Your task to perform on an android device: Open internet settings Image 0: 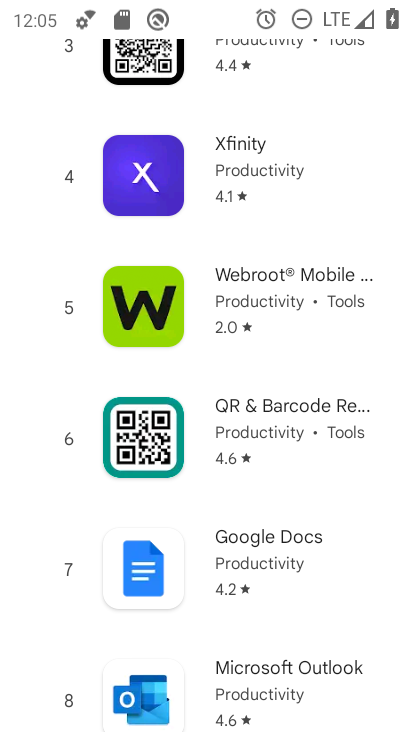
Step 0: press home button
Your task to perform on an android device: Open internet settings Image 1: 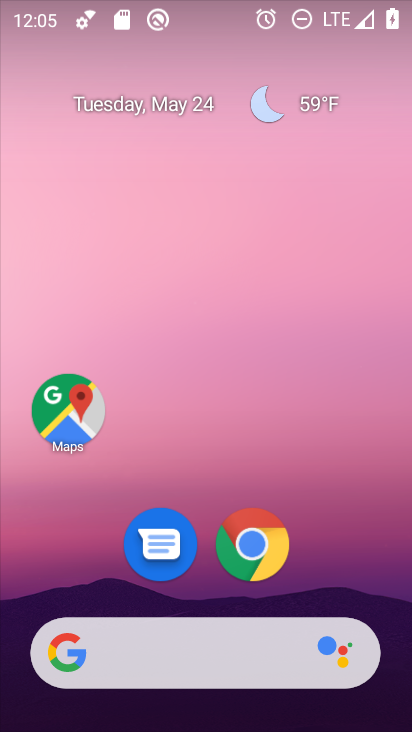
Step 1: drag from (373, 612) to (348, 125)
Your task to perform on an android device: Open internet settings Image 2: 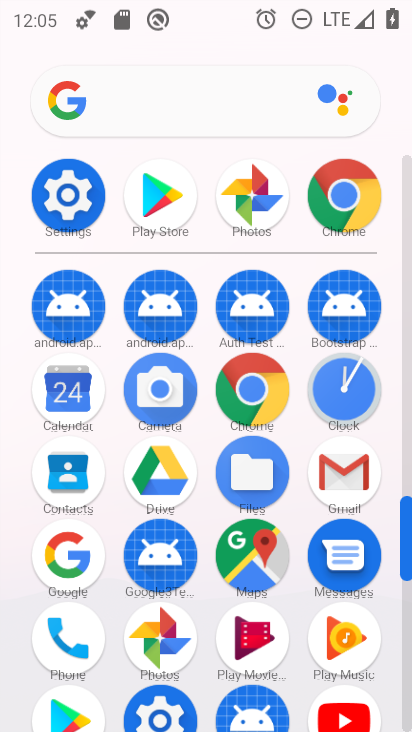
Step 2: click (69, 206)
Your task to perform on an android device: Open internet settings Image 3: 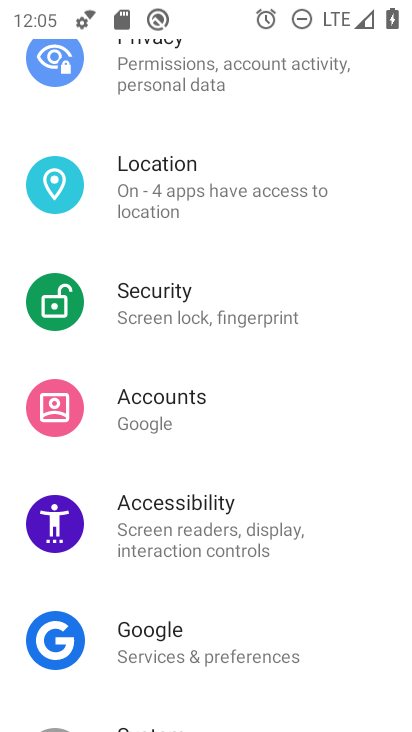
Step 3: drag from (357, 213) to (241, 642)
Your task to perform on an android device: Open internet settings Image 4: 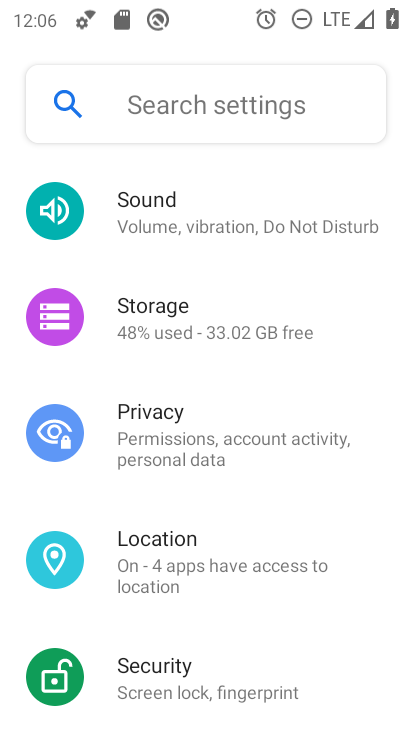
Step 4: drag from (348, 185) to (331, 616)
Your task to perform on an android device: Open internet settings Image 5: 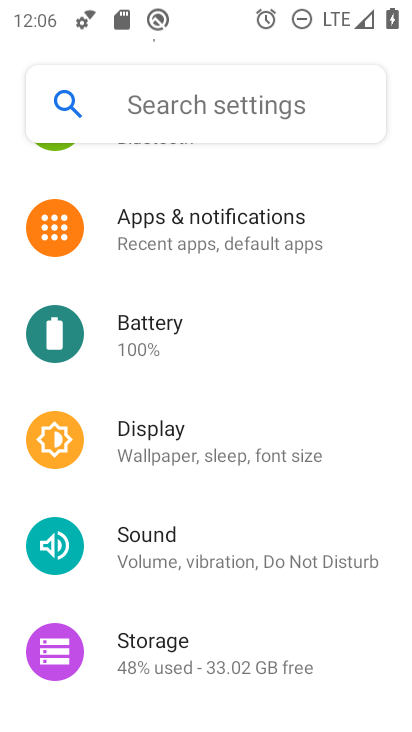
Step 5: drag from (359, 243) to (351, 577)
Your task to perform on an android device: Open internet settings Image 6: 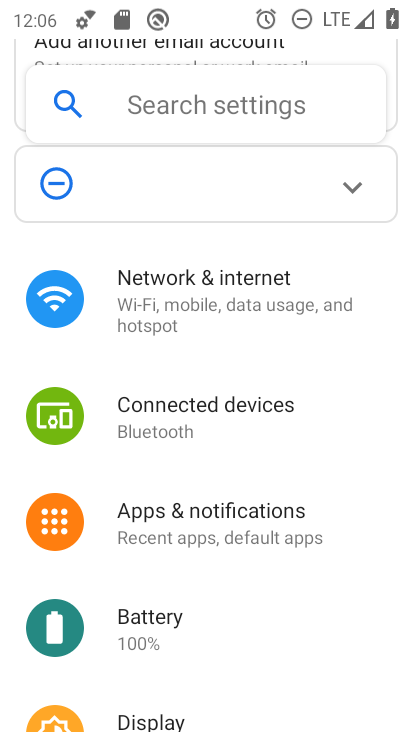
Step 6: click (185, 276)
Your task to perform on an android device: Open internet settings Image 7: 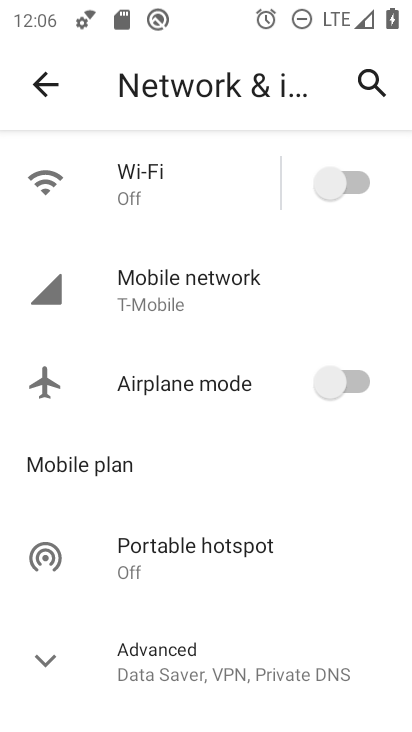
Step 7: click (55, 171)
Your task to perform on an android device: Open internet settings Image 8: 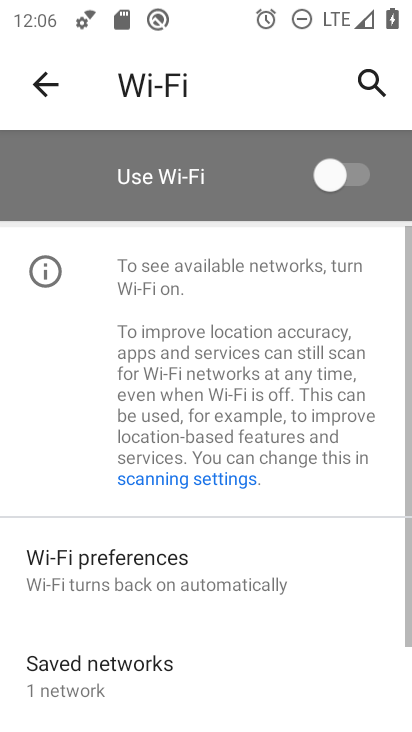
Step 8: task complete